Your task to perform on an android device: delete browsing data in the chrome app Image 0: 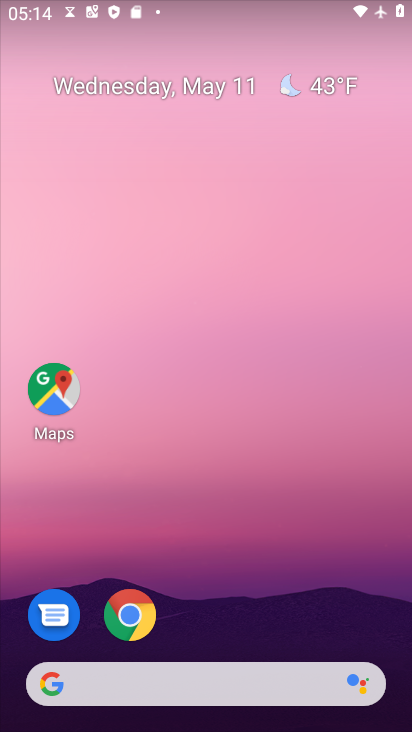
Step 0: drag from (317, 531) to (284, 53)
Your task to perform on an android device: delete browsing data in the chrome app Image 1: 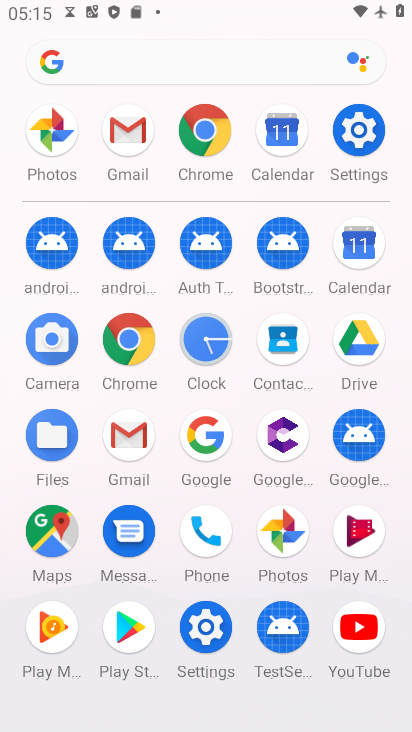
Step 1: click (205, 132)
Your task to perform on an android device: delete browsing data in the chrome app Image 2: 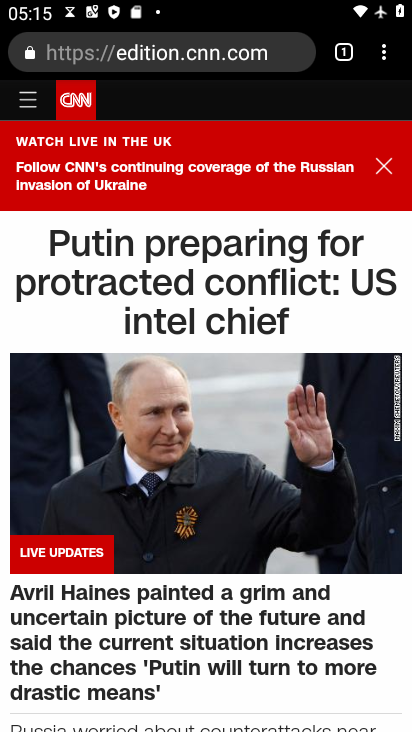
Step 2: drag from (387, 46) to (259, 283)
Your task to perform on an android device: delete browsing data in the chrome app Image 3: 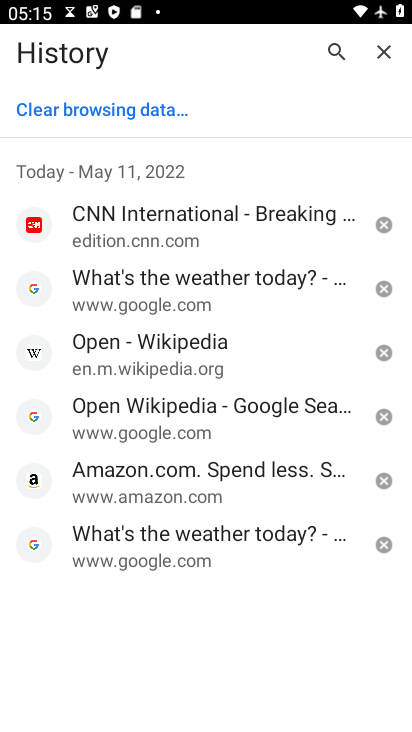
Step 3: click (149, 102)
Your task to perform on an android device: delete browsing data in the chrome app Image 4: 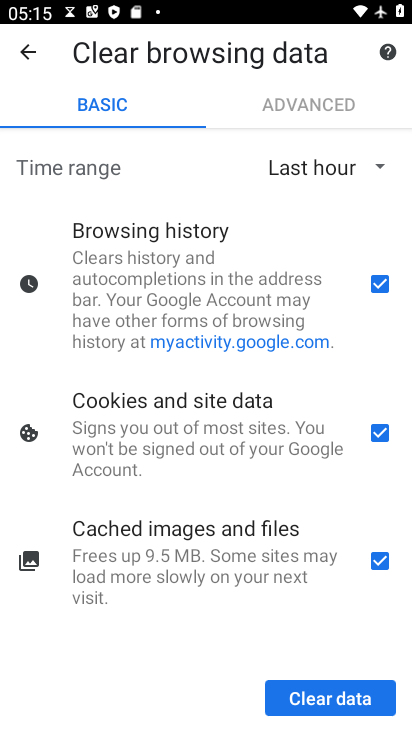
Step 4: click (378, 425)
Your task to perform on an android device: delete browsing data in the chrome app Image 5: 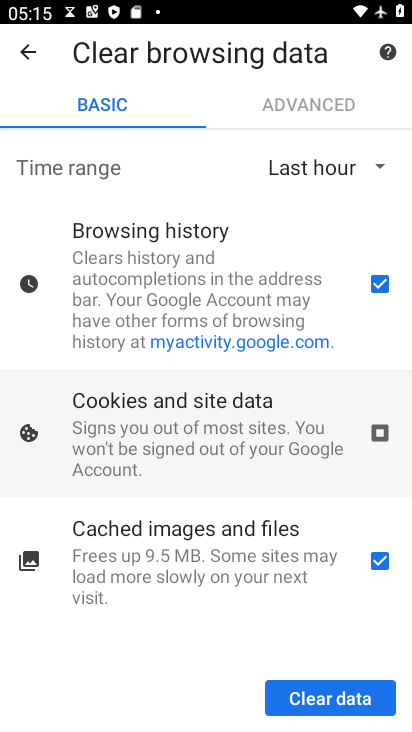
Step 5: click (369, 554)
Your task to perform on an android device: delete browsing data in the chrome app Image 6: 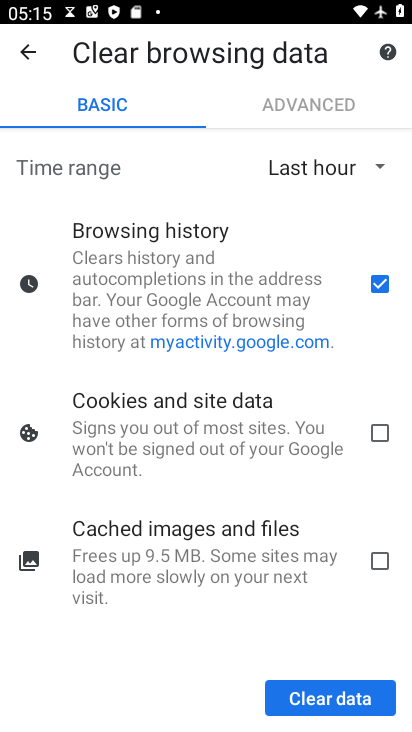
Step 6: click (307, 691)
Your task to perform on an android device: delete browsing data in the chrome app Image 7: 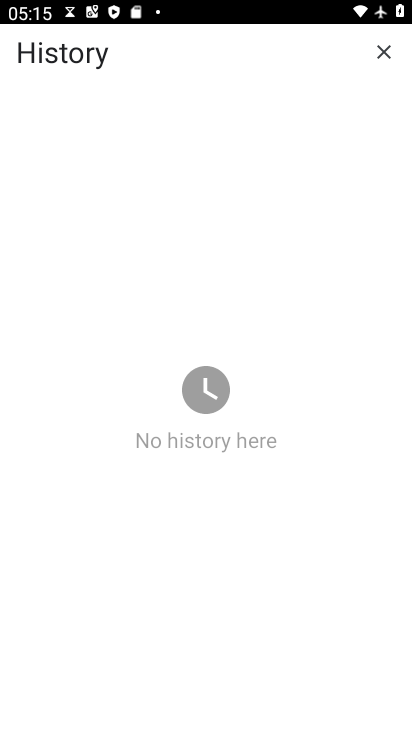
Step 7: task complete